Your task to perform on an android device: Open settings Image 0: 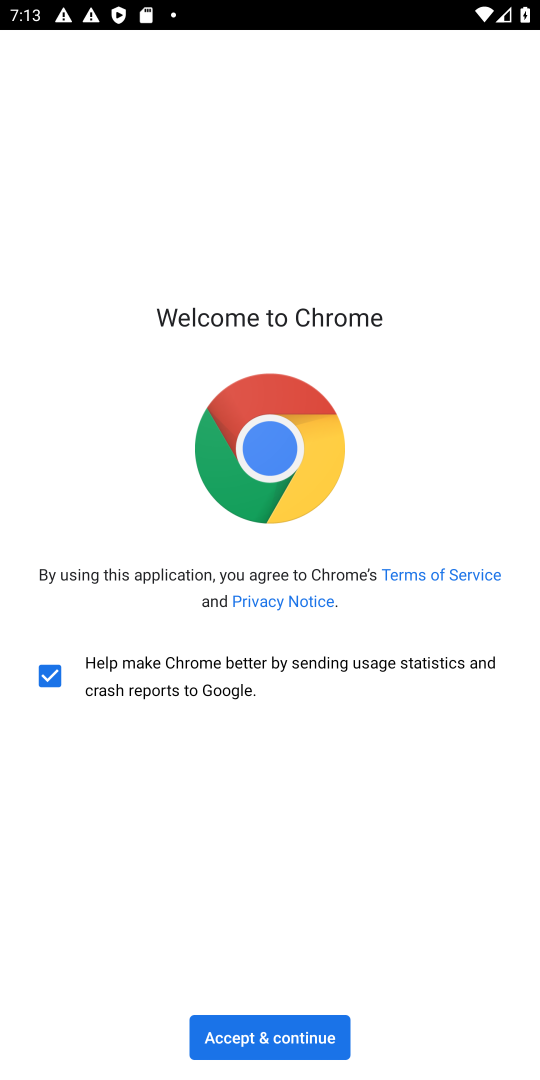
Step 0: press home button
Your task to perform on an android device: Open settings Image 1: 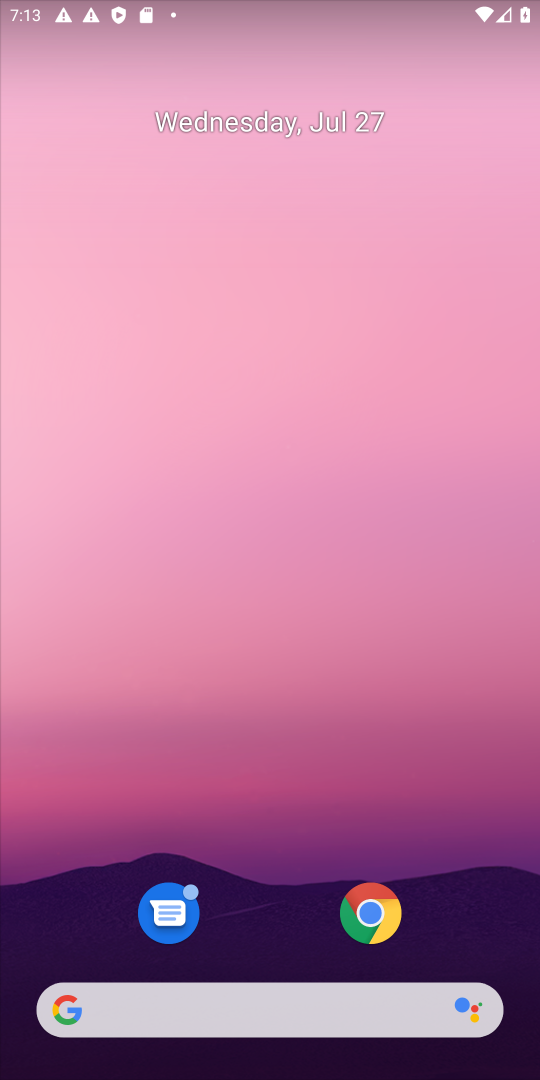
Step 1: drag from (284, 887) to (295, 243)
Your task to perform on an android device: Open settings Image 2: 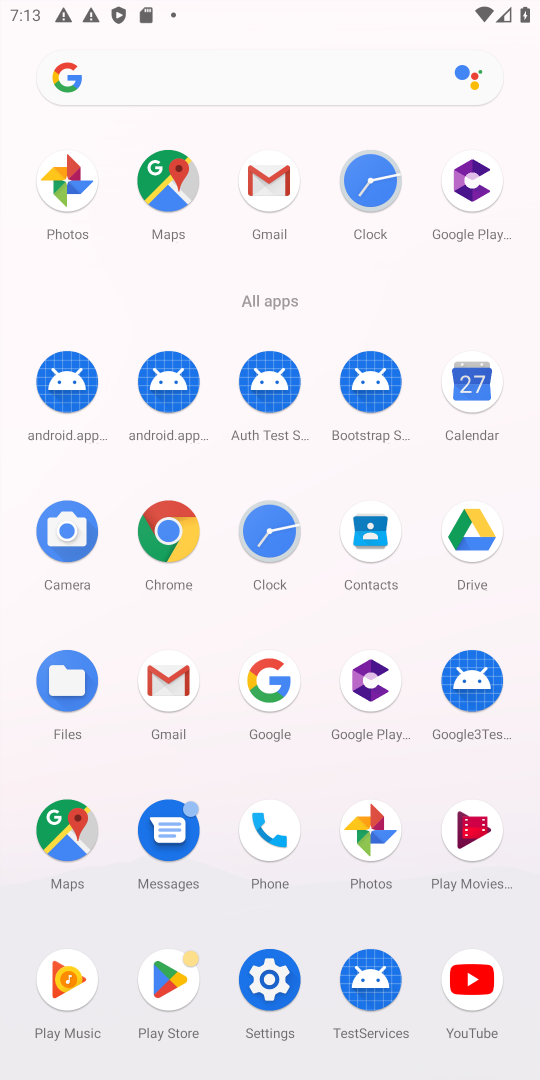
Step 2: click (260, 967)
Your task to perform on an android device: Open settings Image 3: 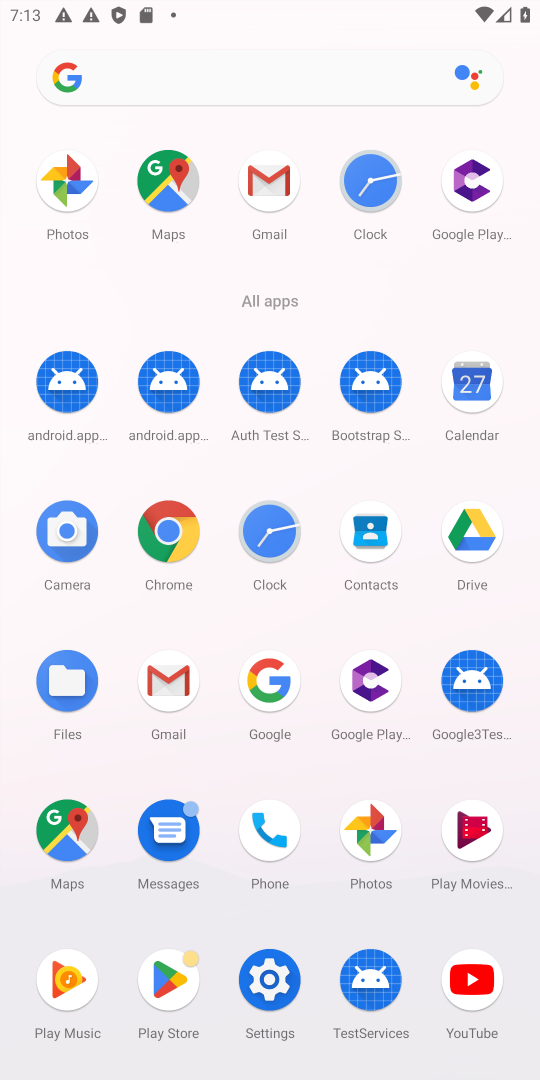
Step 3: click (260, 967)
Your task to perform on an android device: Open settings Image 4: 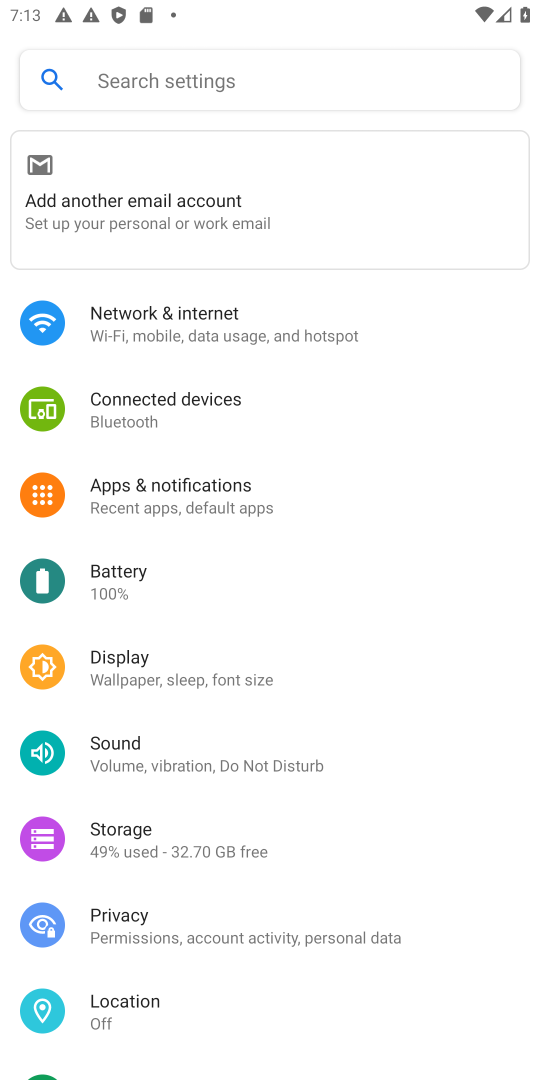
Step 4: task complete